Your task to perform on an android device: allow cookies in the chrome app Image 0: 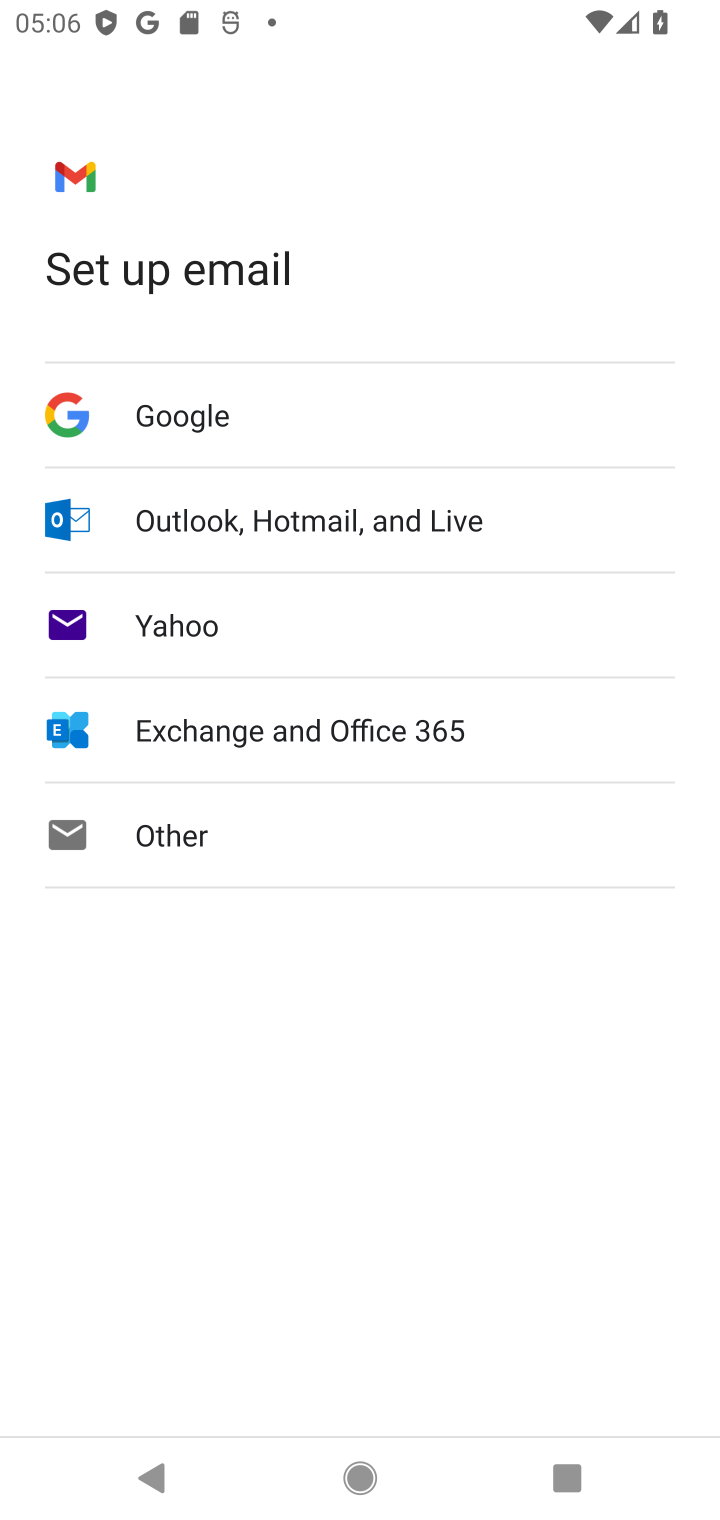
Step 0: press home button
Your task to perform on an android device: allow cookies in the chrome app Image 1: 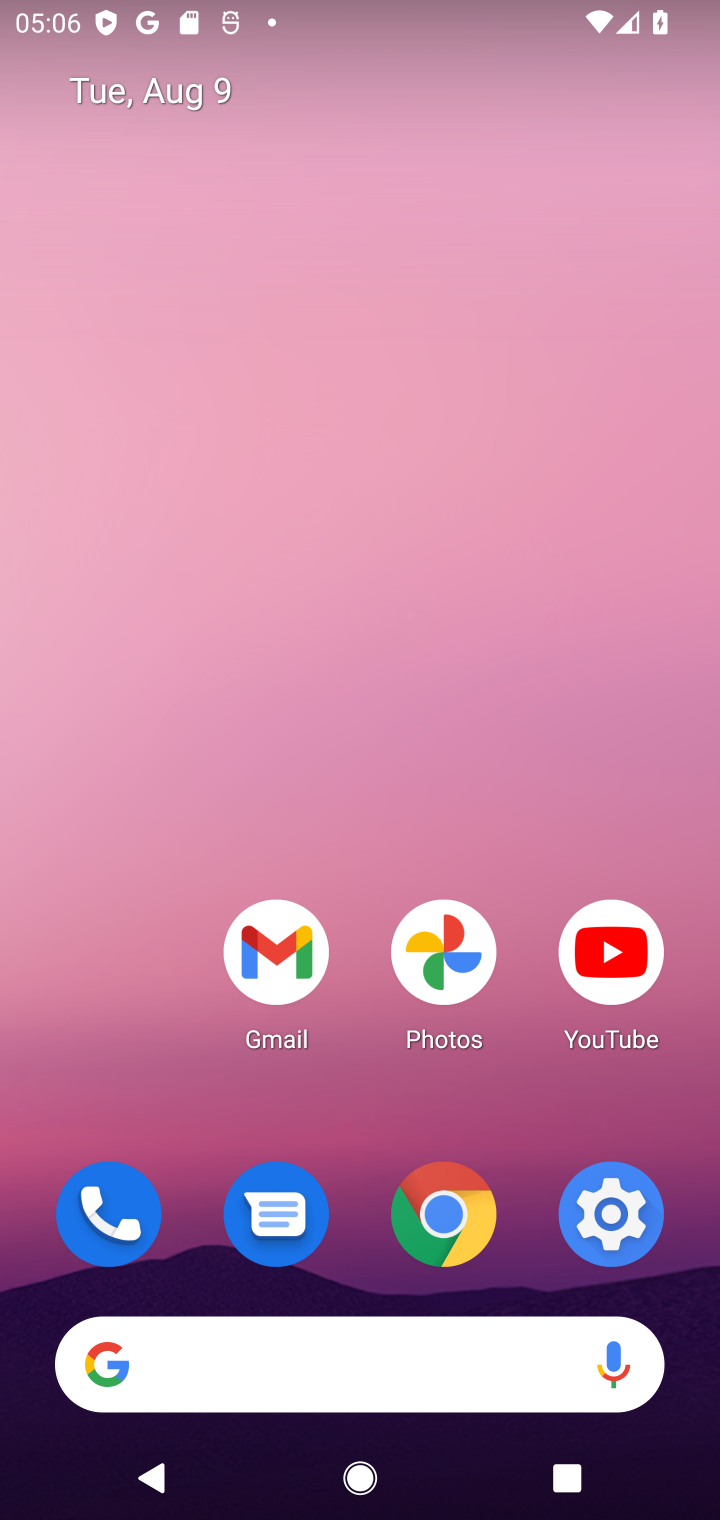
Step 1: drag from (316, 1191) to (219, 571)
Your task to perform on an android device: allow cookies in the chrome app Image 2: 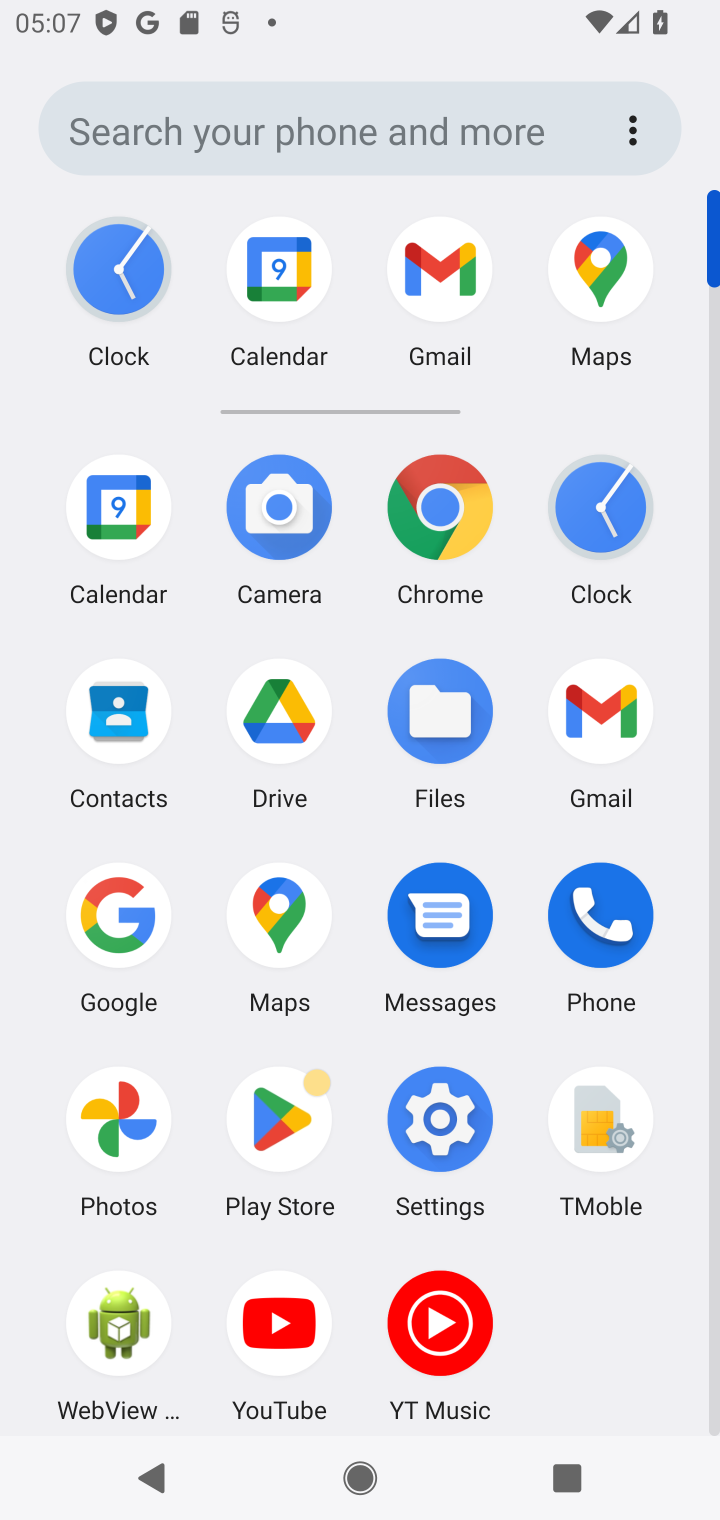
Step 2: click (432, 538)
Your task to perform on an android device: allow cookies in the chrome app Image 3: 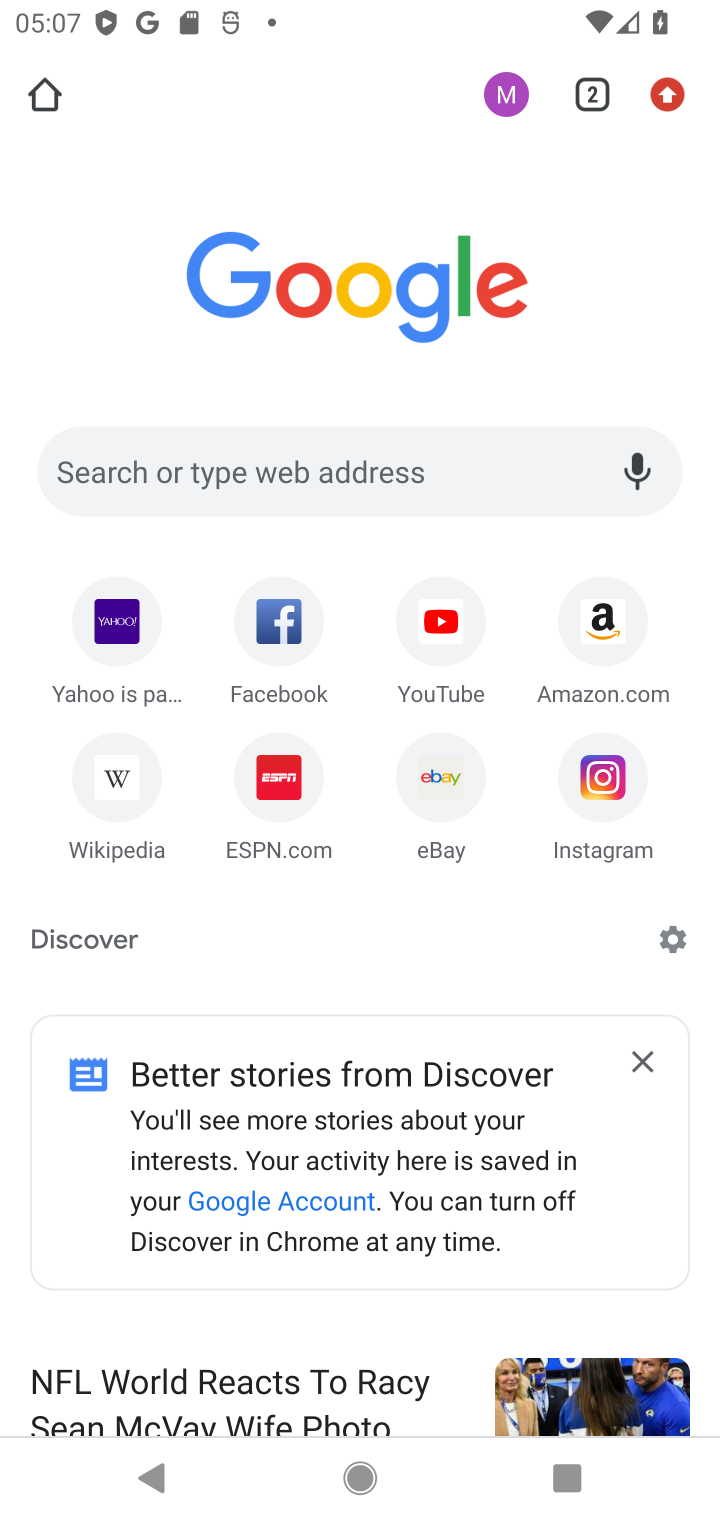
Step 3: click (654, 103)
Your task to perform on an android device: allow cookies in the chrome app Image 4: 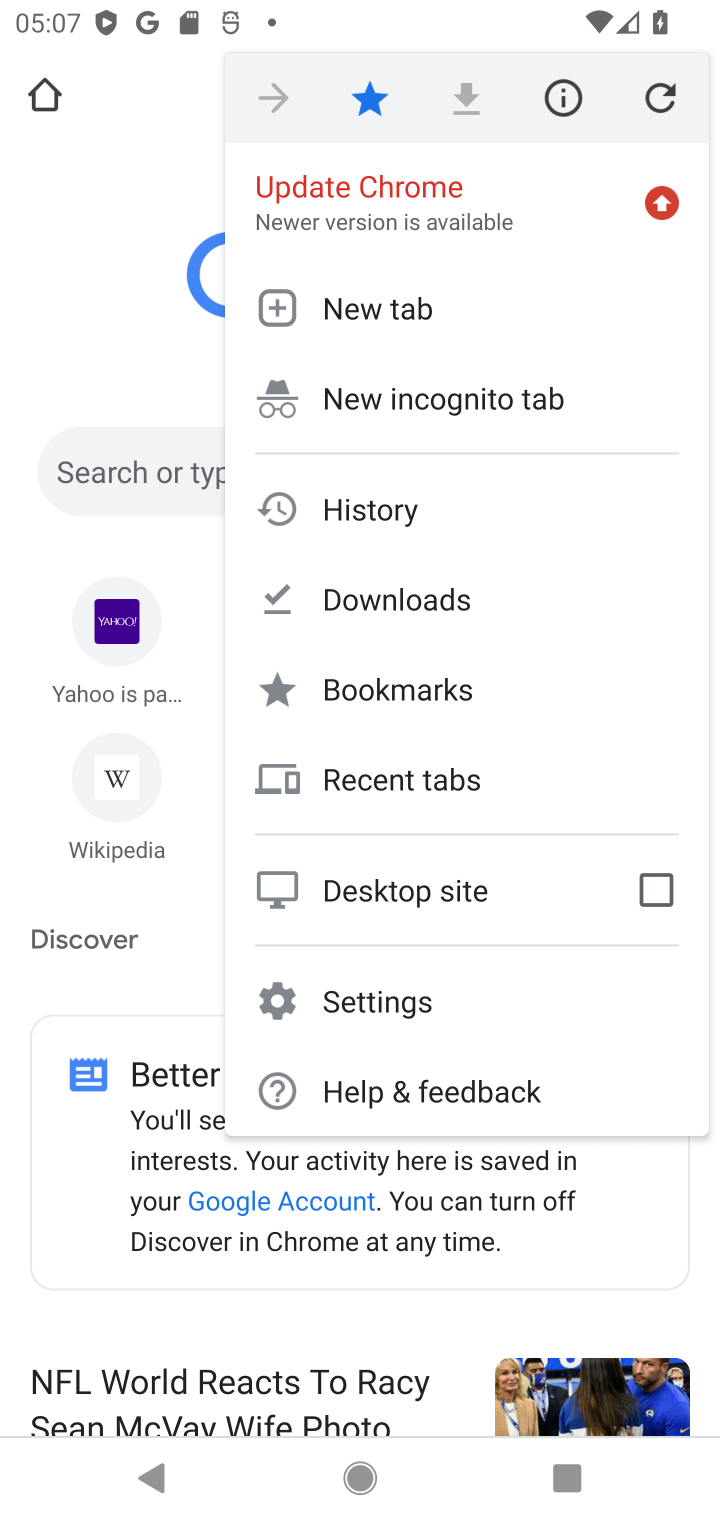
Step 4: click (364, 991)
Your task to perform on an android device: allow cookies in the chrome app Image 5: 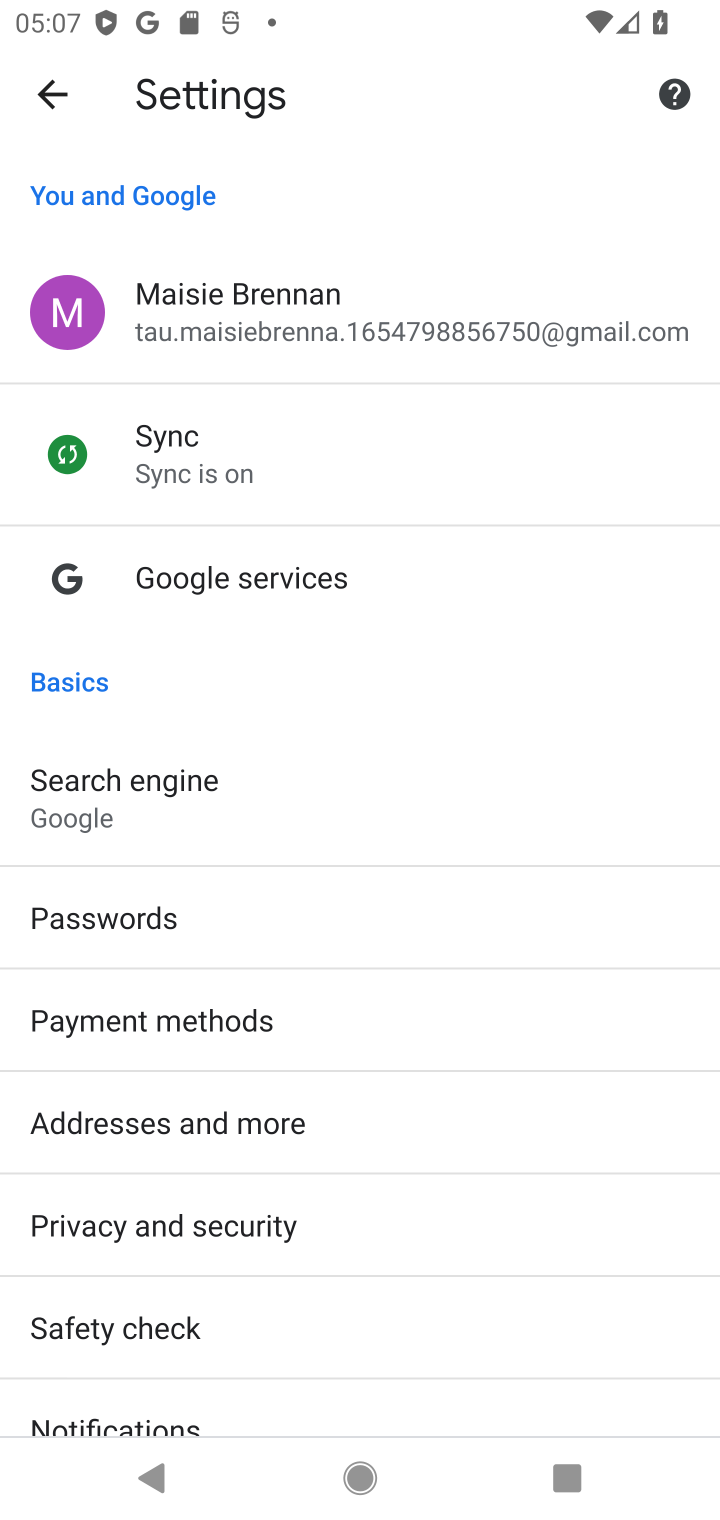
Step 5: drag from (255, 1213) to (227, 800)
Your task to perform on an android device: allow cookies in the chrome app Image 6: 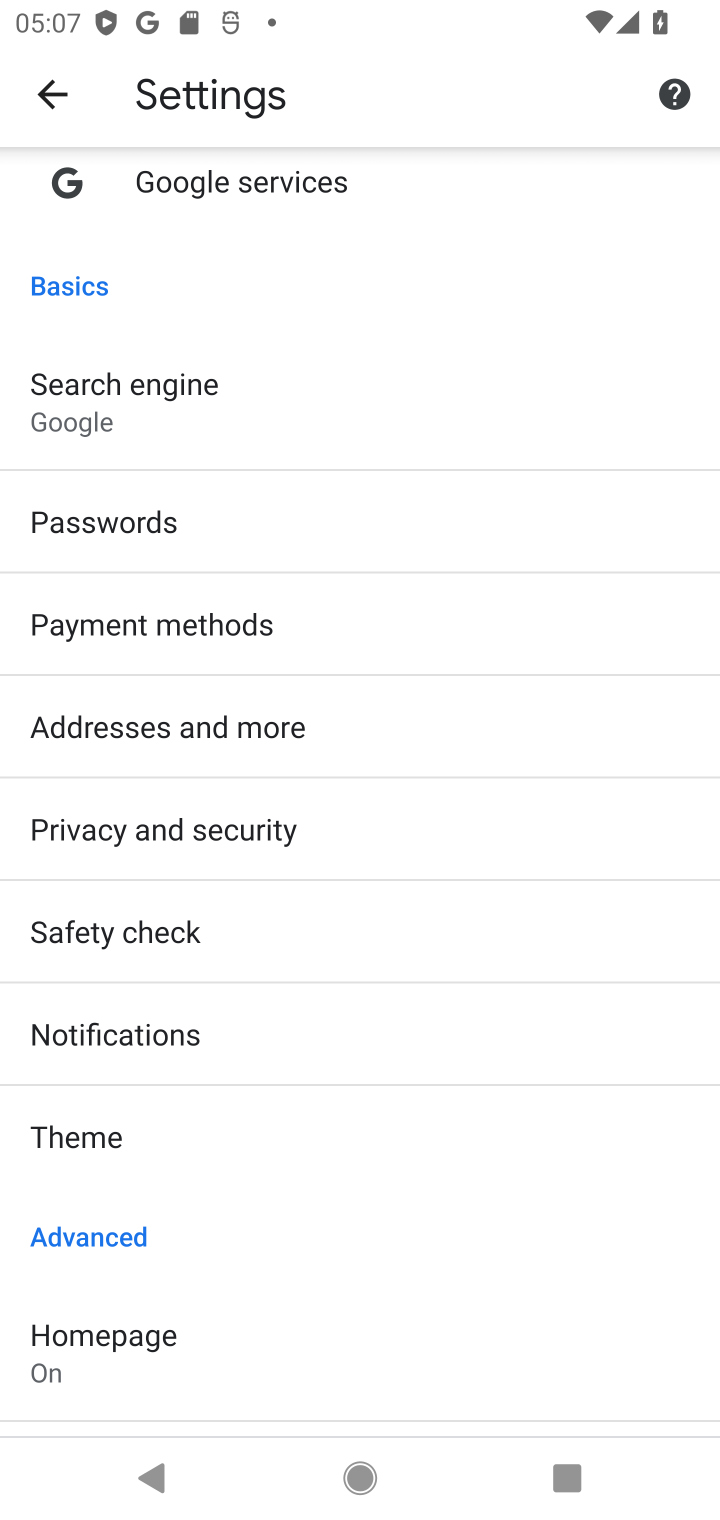
Step 6: drag from (204, 1190) to (228, 836)
Your task to perform on an android device: allow cookies in the chrome app Image 7: 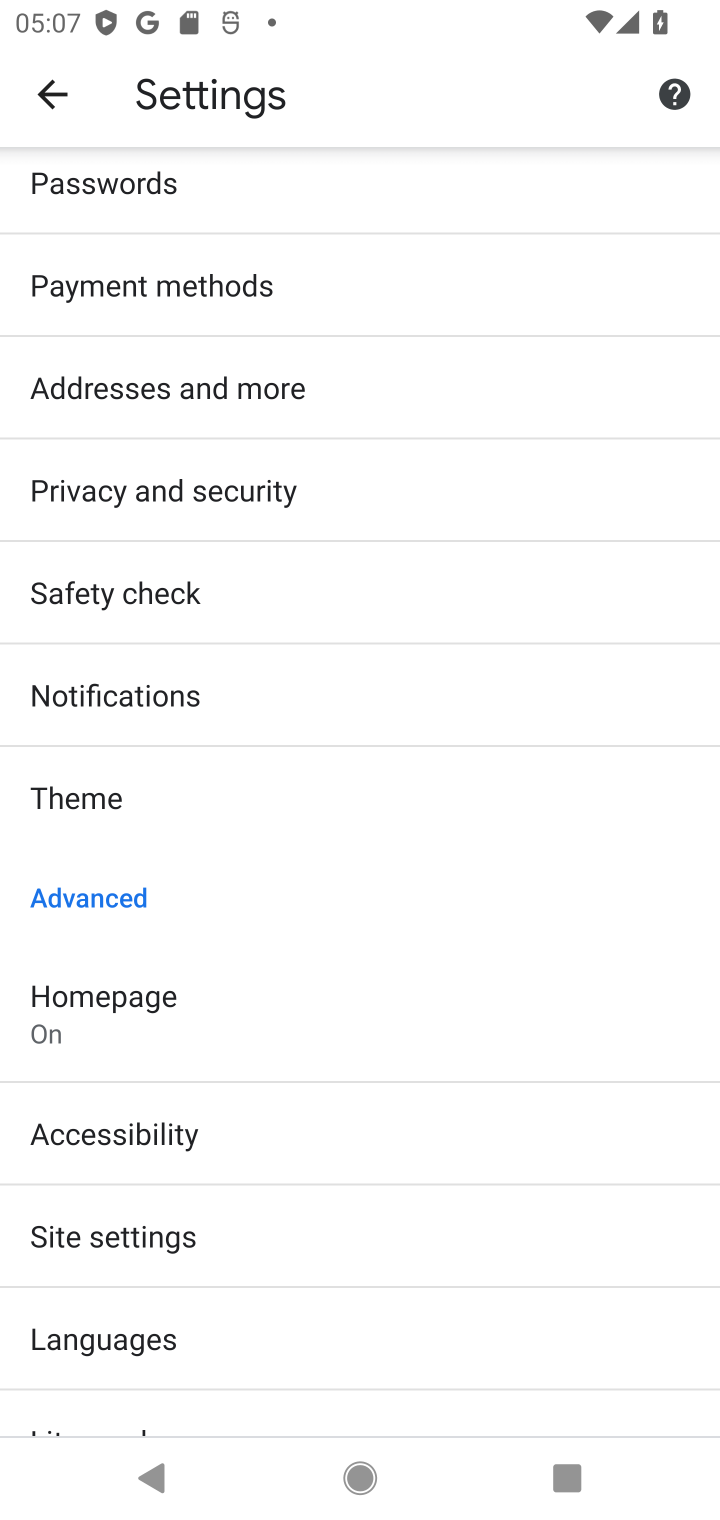
Step 7: click (175, 1231)
Your task to perform on an android device: allow cookies in the chrome app Image 8: 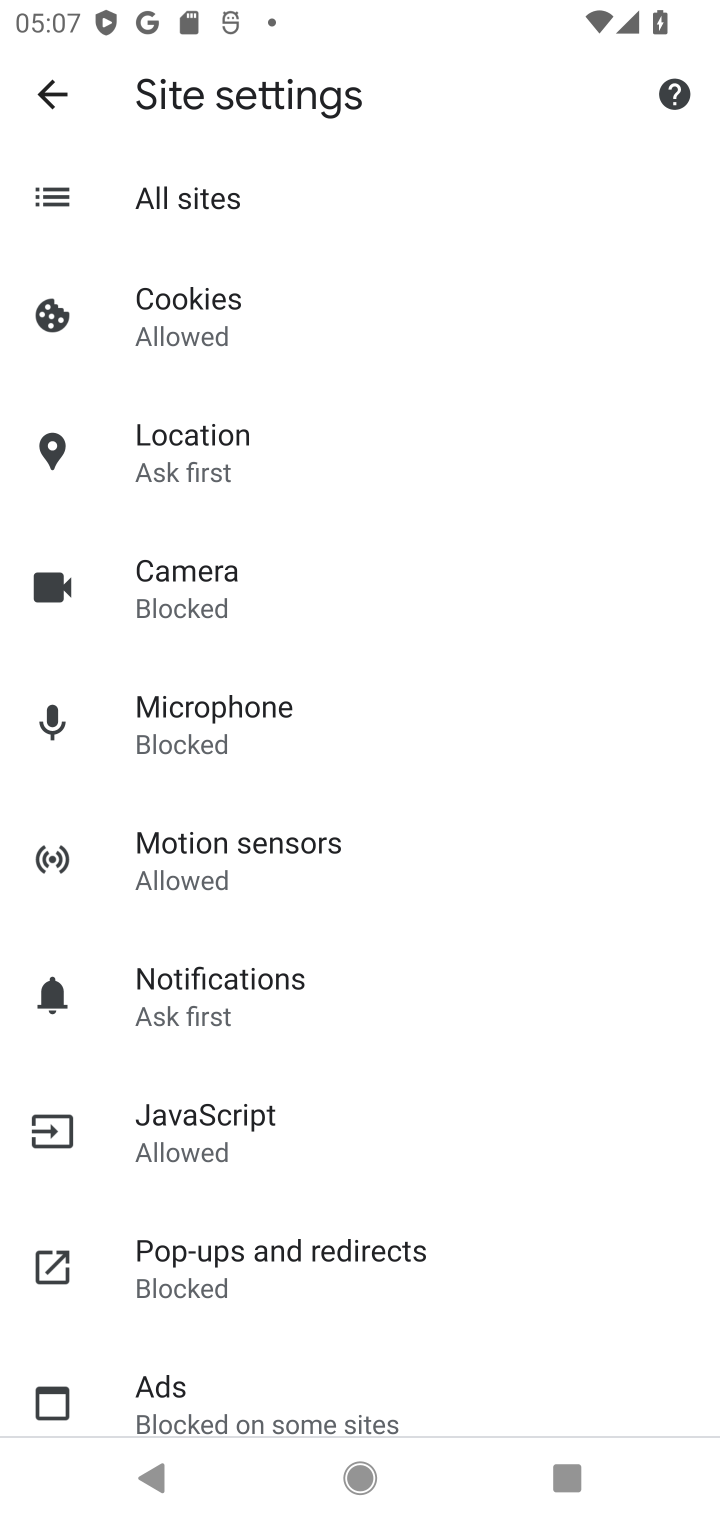
Step 8: click (252, 331)
Your task to perform on an android device: allow cookies in the chrome app Image 9: 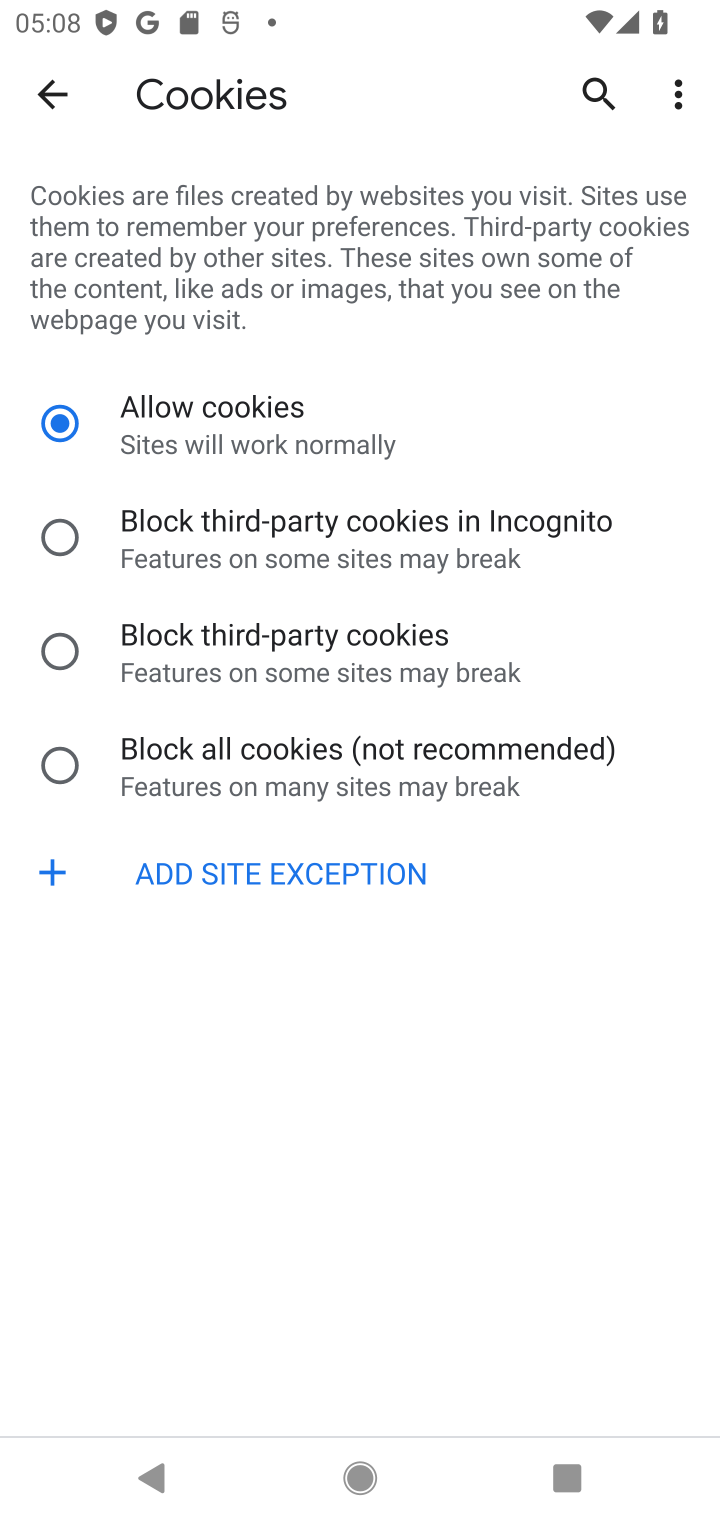
Step 9: task complete